Your task to perform on an android device: turn off data saver in the chrome app Image 0: 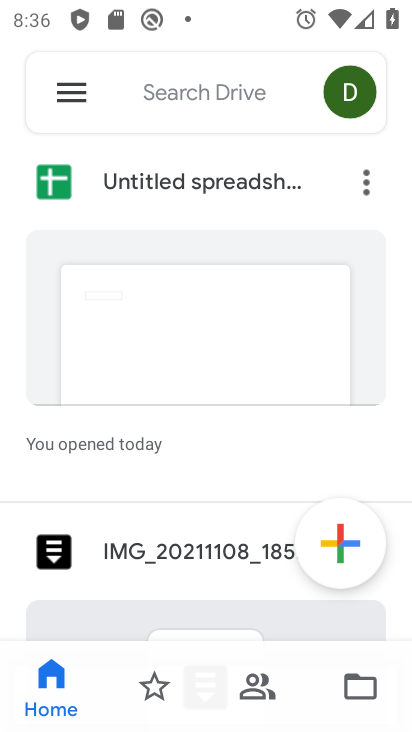
Step 0: press home button
Your task to perform on an android device: turn off data saver in the chrome app Image 1: 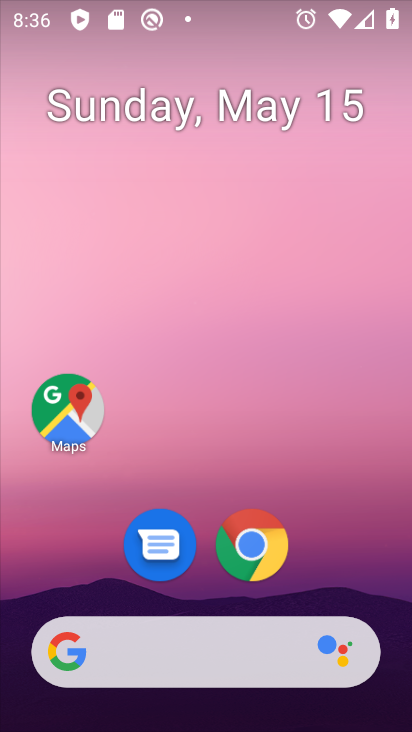
Step 1: drag from (366, 552) to (351, 125)
Your task to perform on an android device: turn off data saver in the chrome app Image 2: 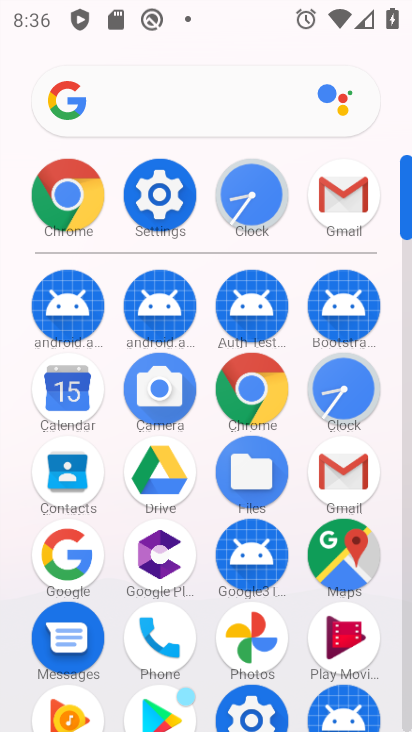
Step 2: click (254, 411)
Your task to perform on an android device: turn off data saver in the chrome app Image 3: 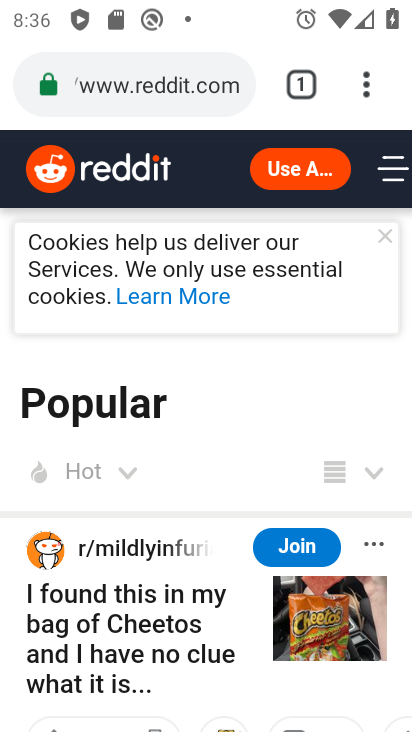
Step 3: click (367, 94)
Your task to perform on an android device: turn off data saver in the chrome app Image 4: 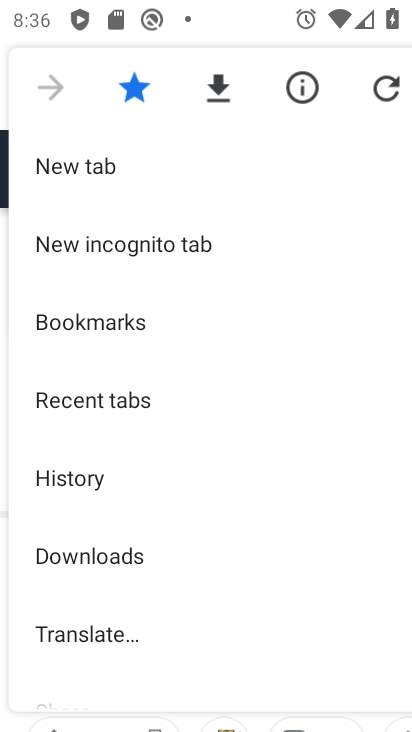
Step 4: drag from (301, 607) to (308, 356)
Your task to perform on an android device: turn off data saver in the chrome app Image 5: 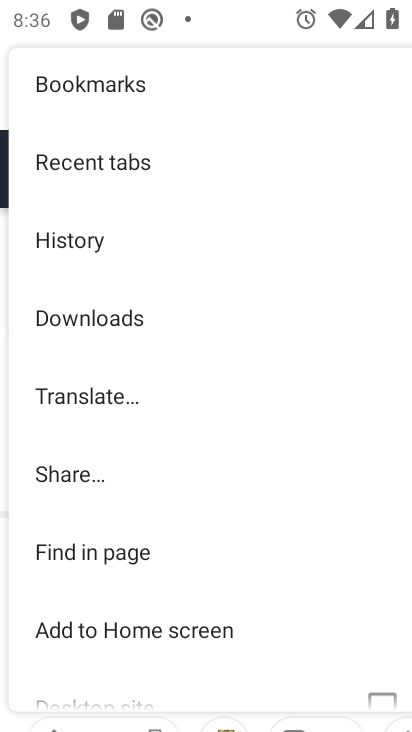
Step 5: drag from (286, 624) to (314, 417)
Your task to perform on an android device: turn off data saver in the chrome app Image 6: 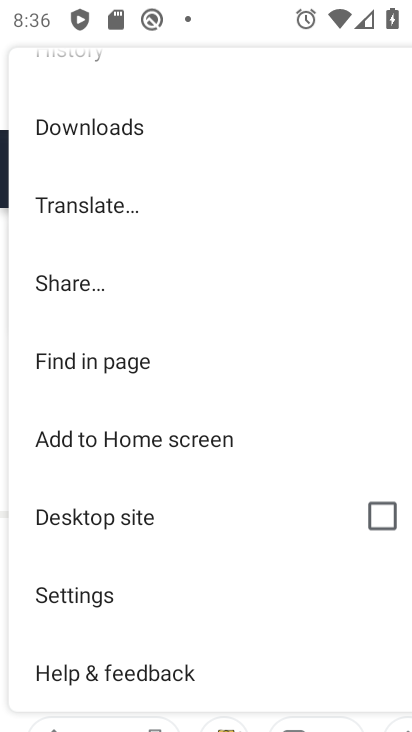
Step 6: drag from (274, 657) to (289, 393)
Your task to perform on an android device: turn off data saver in the chrome app Image 7: 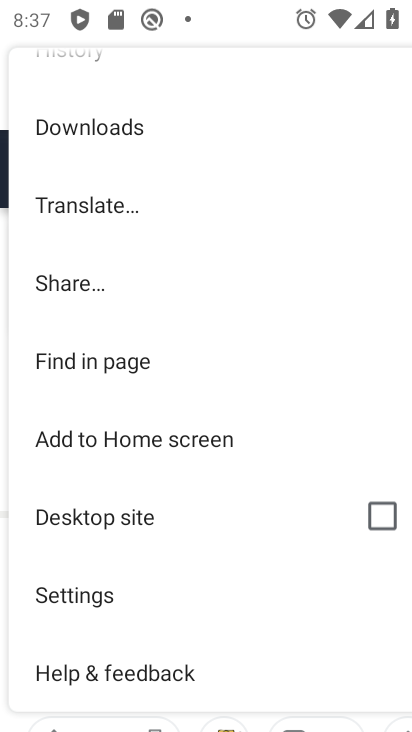
Step 7: click (90, 611)
Your task to perform on an android device: turn off data saver in the chrome app Image 8: 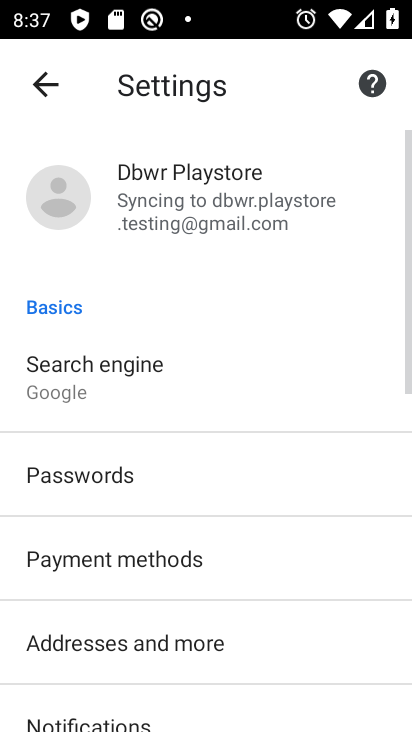
Step 8: drag from (285, 648) to (319, 401)
Your task to perform on an android device: turn off data saver in the chrome app Image 9: 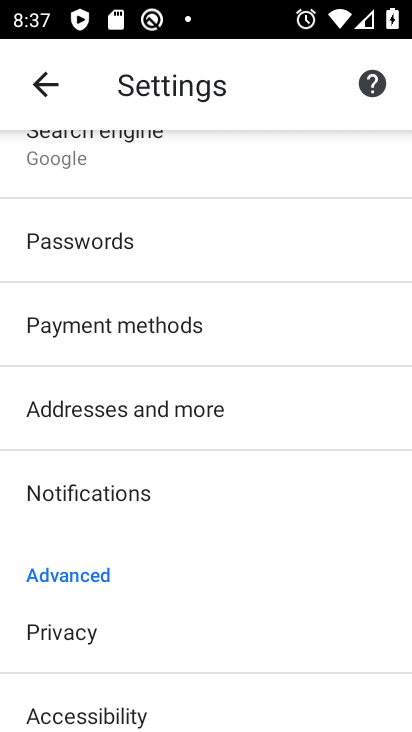
Step 9: drag from (301, 657) to (299, 432)
Your task to perform on an android device: turn off data saver in the chrome app Image 10: 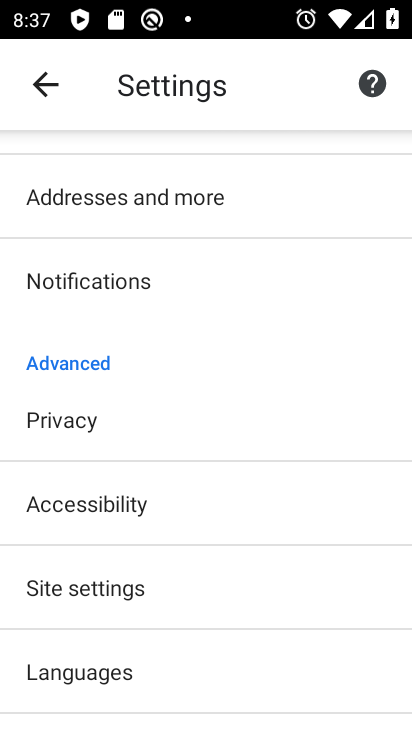
Step 10: drag from (298, 678) to (290, 431)
Your task to perform on an android device: turn off data saver in the chrome app Image 11: 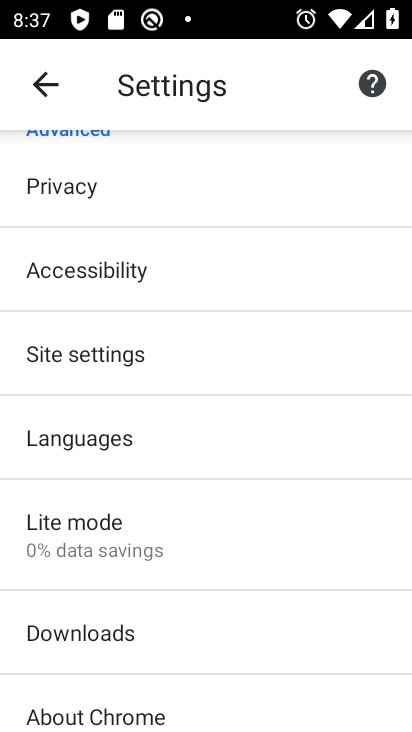
Step 11: drag from (280, 639) to (300, 384)
Your task to perform on an android device: turn off data saver in the chrome app Image 12: 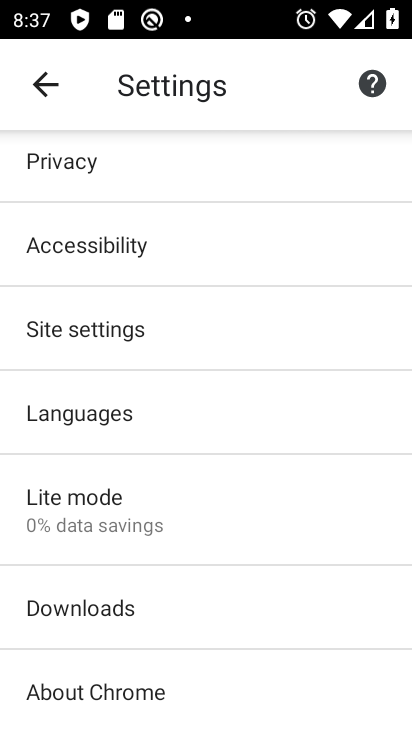
Step 12: click (190, 524)
Your task to perform on an android device: turn off data saver in the chrome app Image 13: 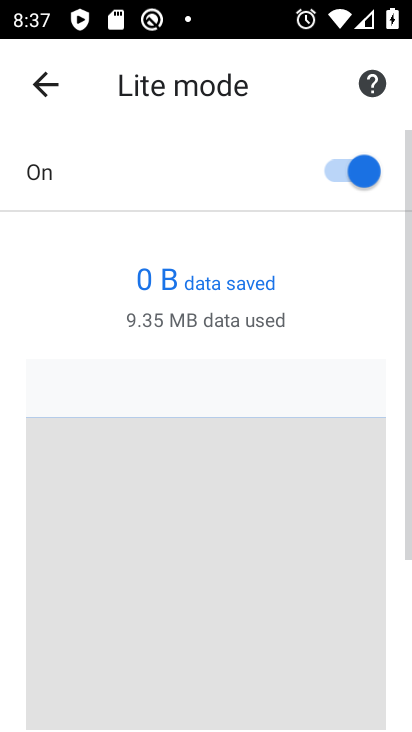
Step 13: click (334, 179)
Your task to perform on an android device: turn off data saver in the chrome app Image 14: 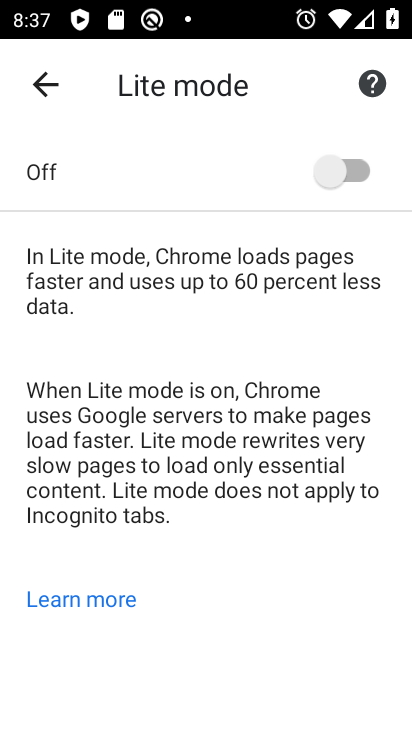
Step 14: task complete